Your task to perform on an android device: open app "Google Duo" Image 0: 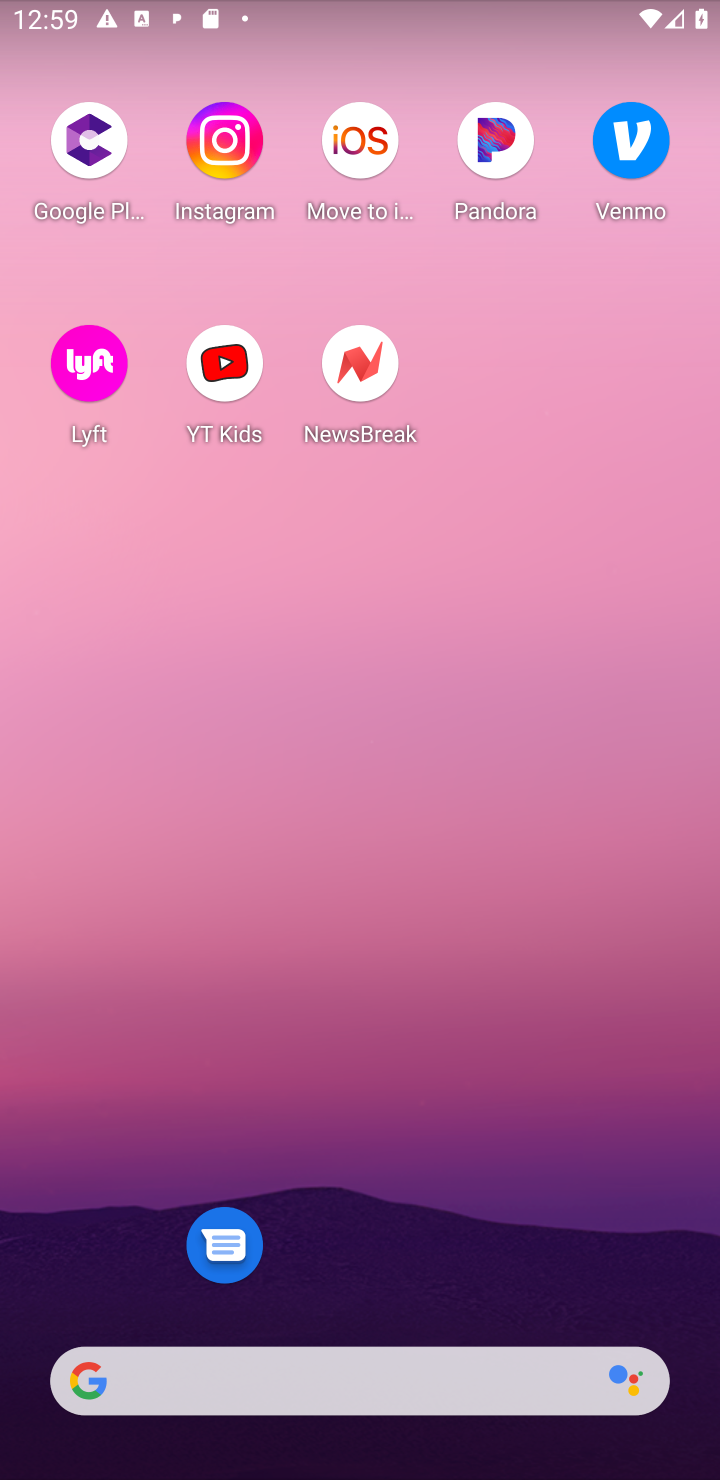
Step 0: drag from (387, 1227) to (438, 365)
Your task to perform on an android device: open app "Google Duo" Image 1: 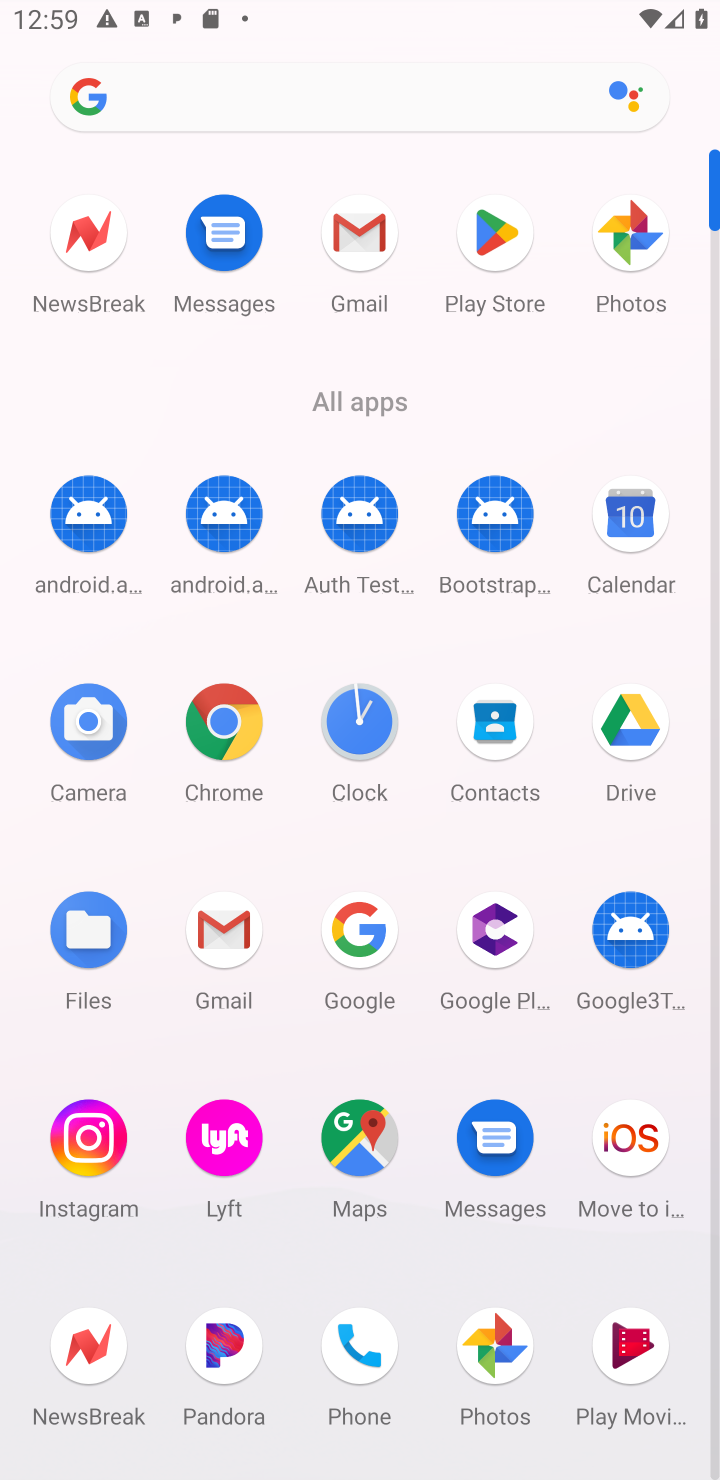
Step 1: click (495, 240)
Your task to perform on an android device: open app "Google Duo" Image 2: 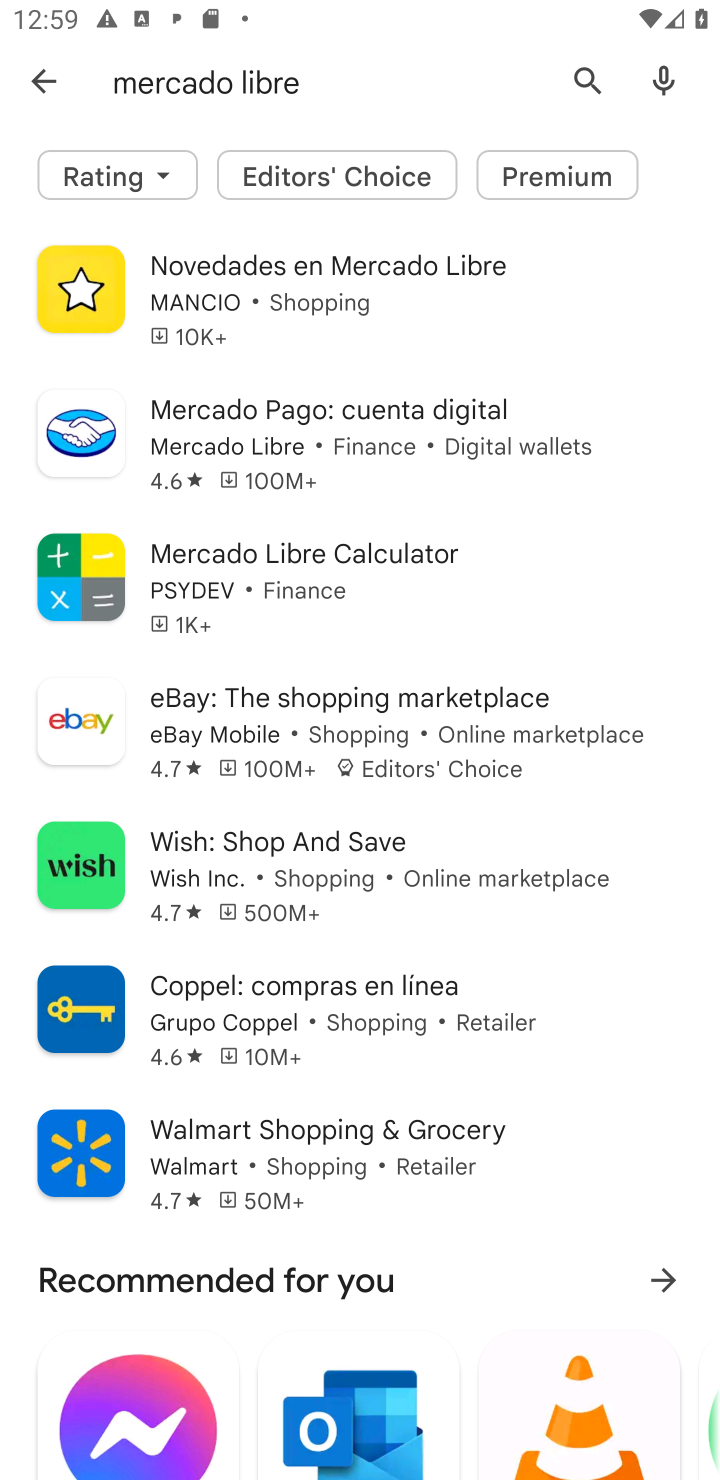
Step 2: click (574, 78)
Your task to perform on an android device: open app "Google Duo" Image 3: 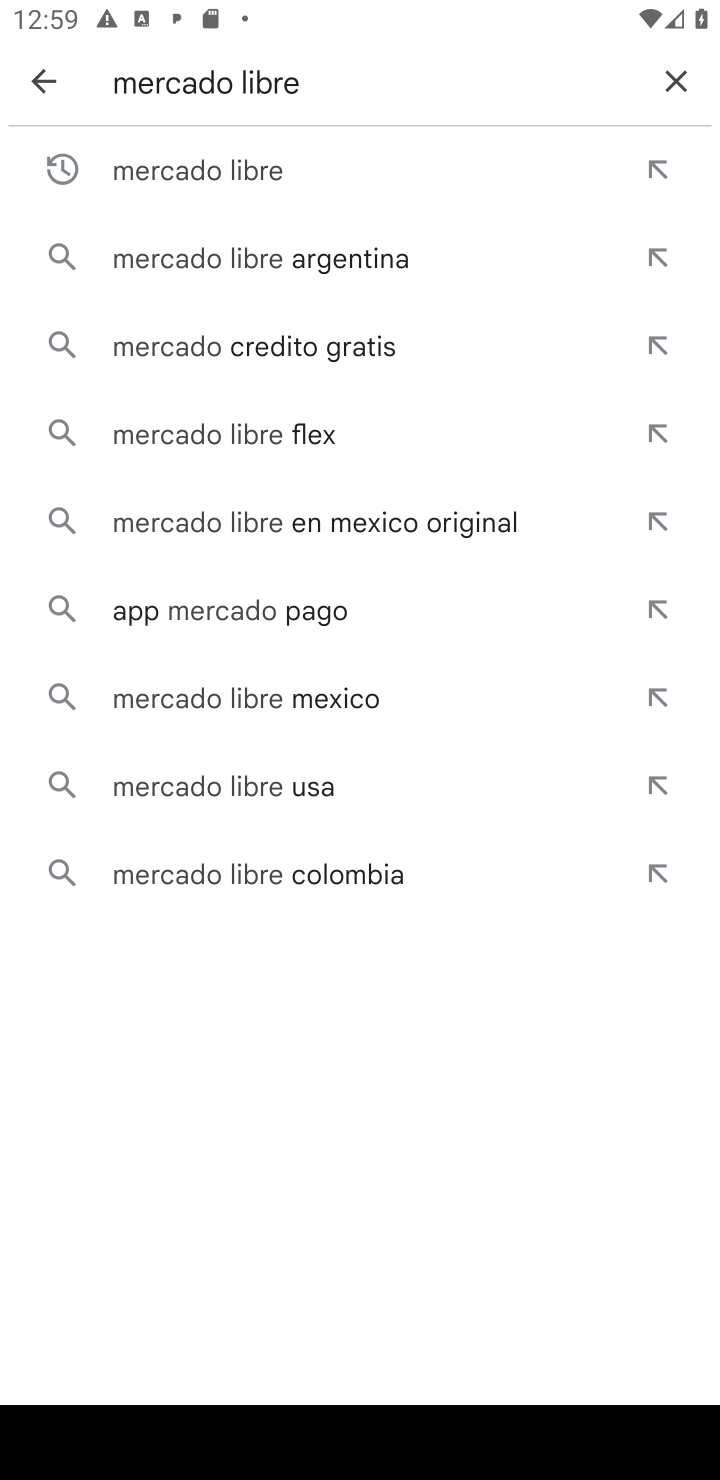
Step 3: click (681, 90)
Your task to perform on an android device: open app "Google Duo" Image 4: 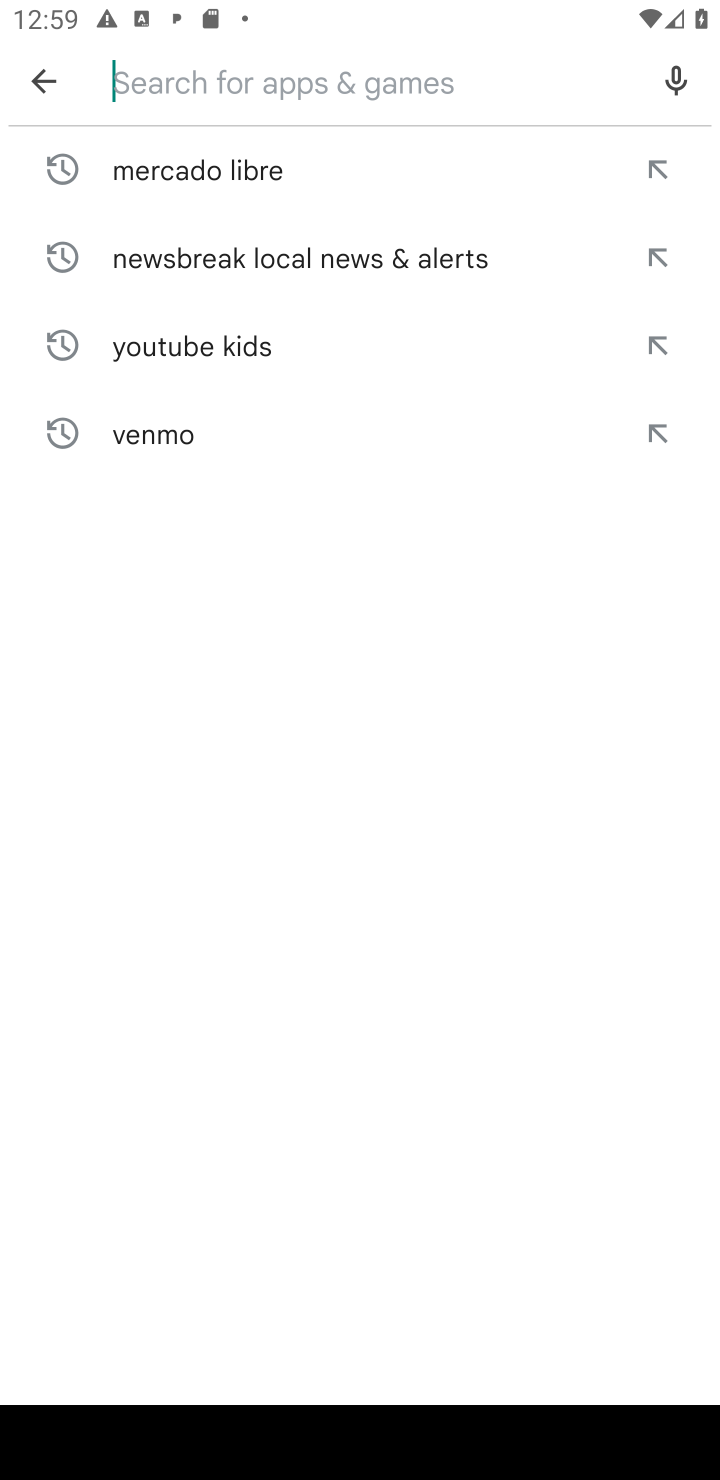
Step 4: type "Google Duo"
Your task to perform on an android device: open app "Google Duo" Image 5: 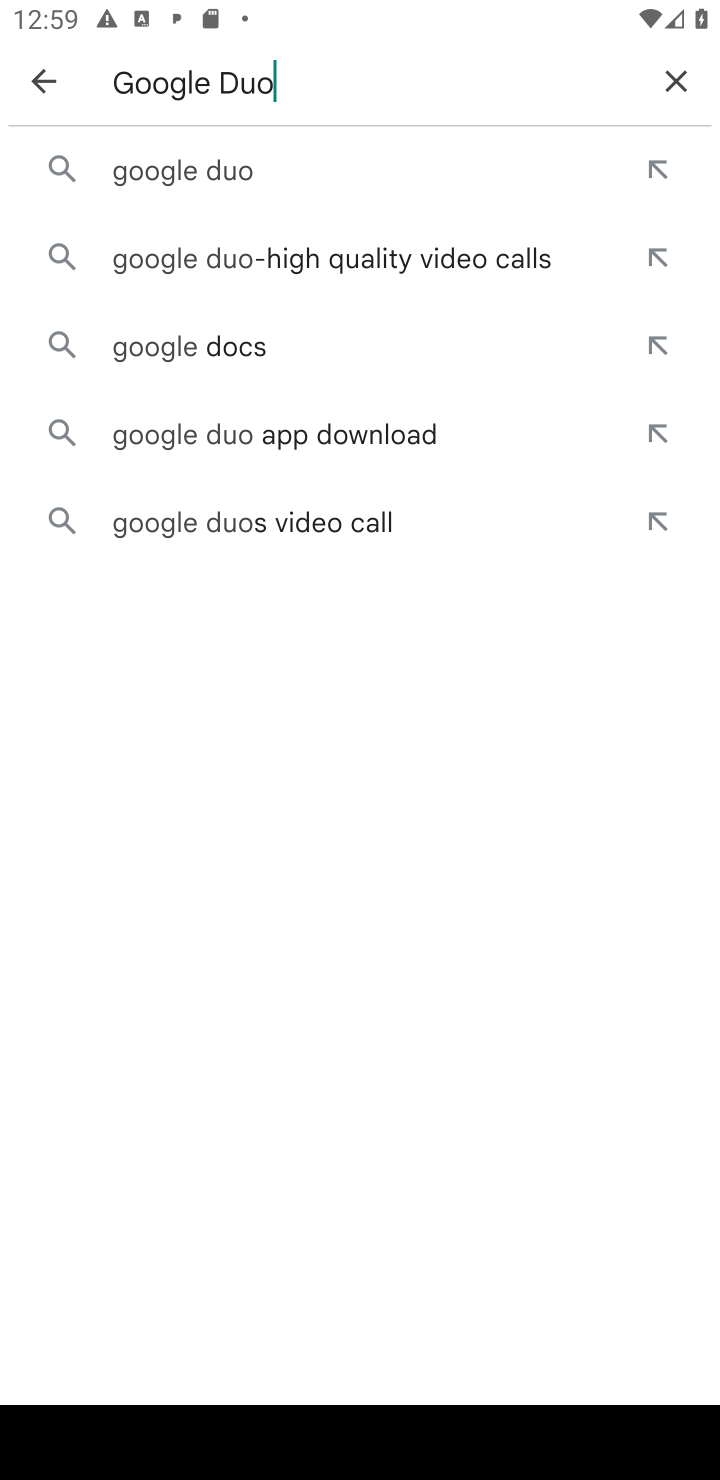
Step 5: click (176, 170)
Your task to perform on an android device: open app "Google Duo" Image 6: 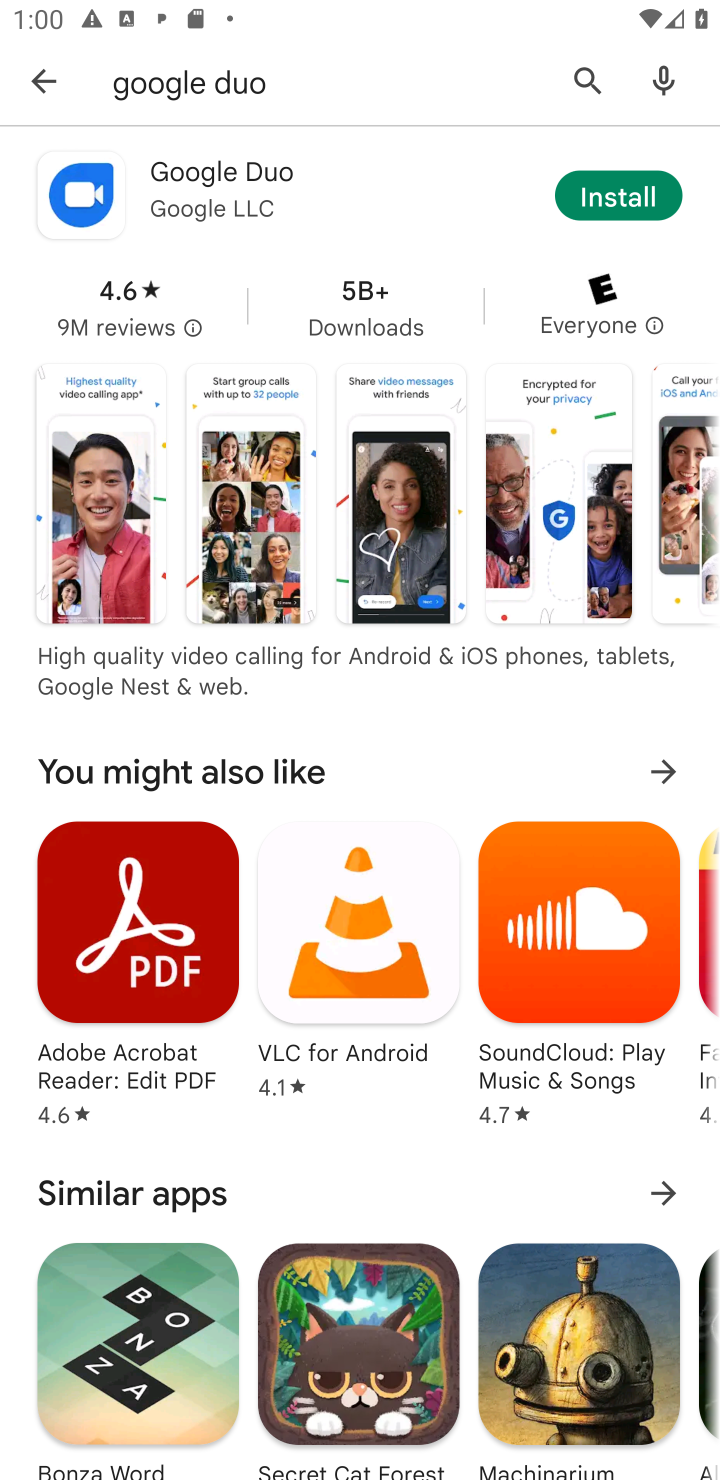
Step 6: click (600, 195)
Your task to perform on an android device: open app "Google Duo" Image 7: 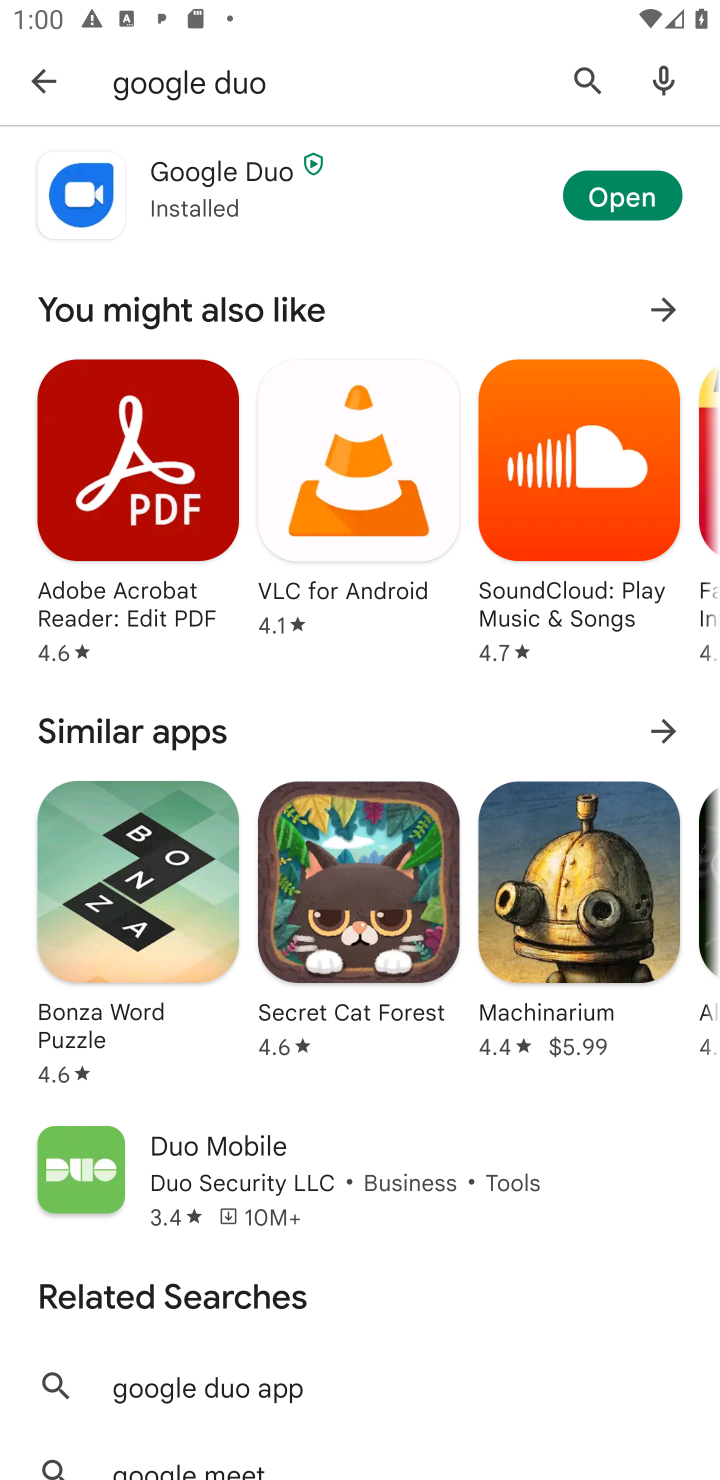
Step 7: click (627, 197)
Your task to perform on an android device: open app "Google Duo" Image 8: 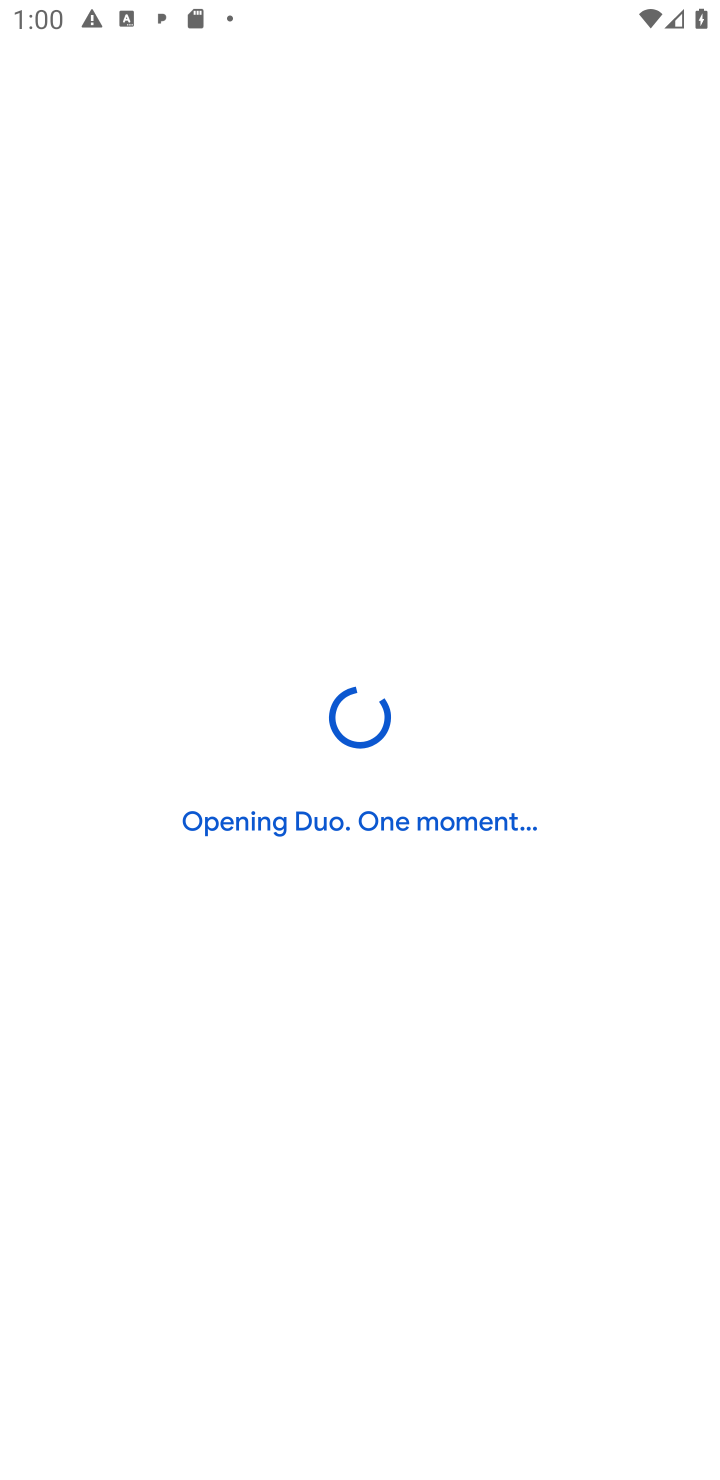
Step 8: task complete